Your task to perform on an android device: change notification settings in the gmail app Image 0: 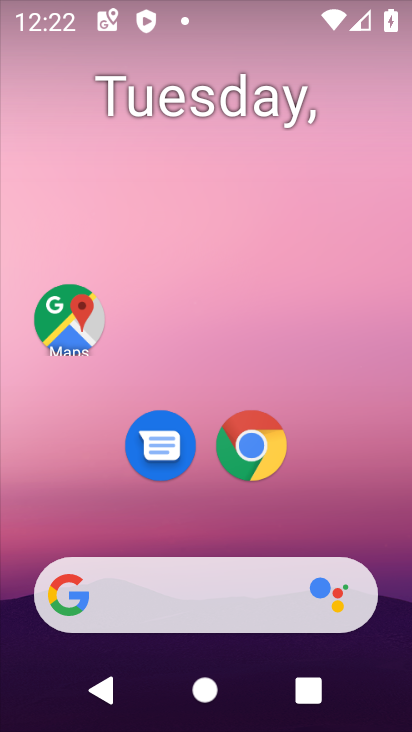
Step 0: drag from (366, 498) to (392, 1)
Your task to perform on an android device: change notification settings in the gmail app Image 1: 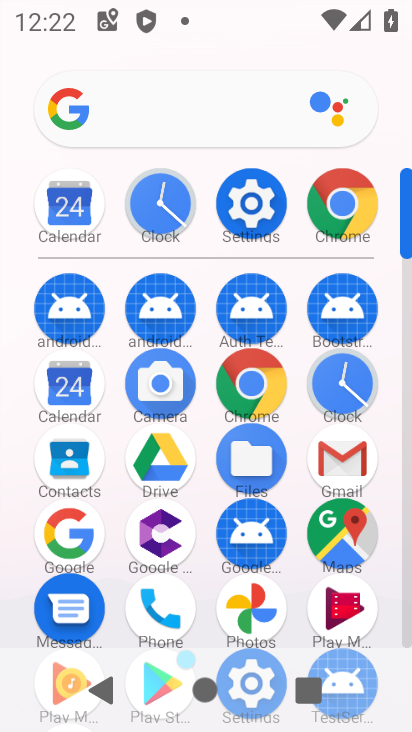
Step 1: click (355, 455)
Your task to perform on an android device: change notification settings in the gmail app Image 2: 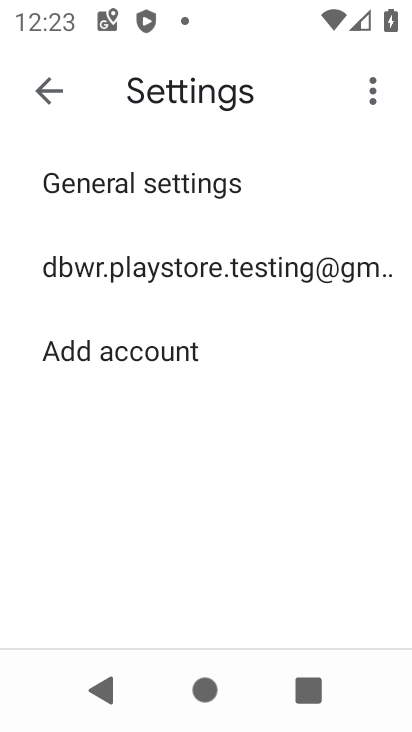
Step 2: click (162, 271)
Your task to perform on an android device: change notification settings in the gmail app Image 3: 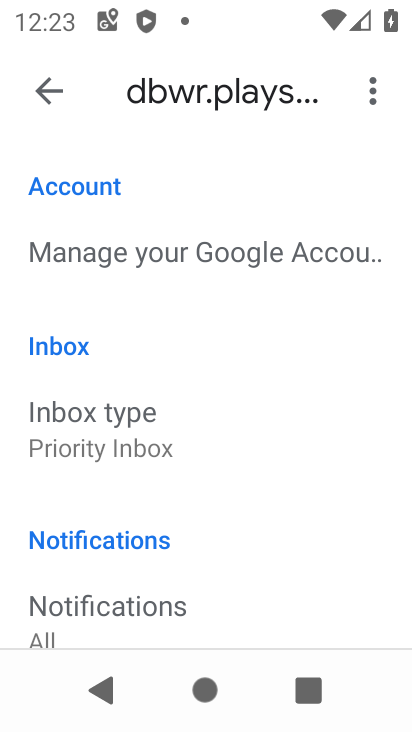
Step 3: drag from (124, 605) to (185, 301)
Your task to perform on an android device: change notification settings in the gmail app Image 4: 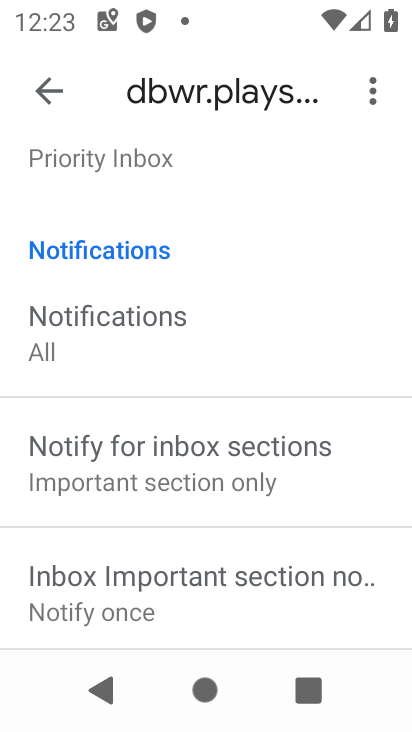
Step 4: click (145, 309)
Your task to perform on an android device: change notification settings in the gmail app Image 5: 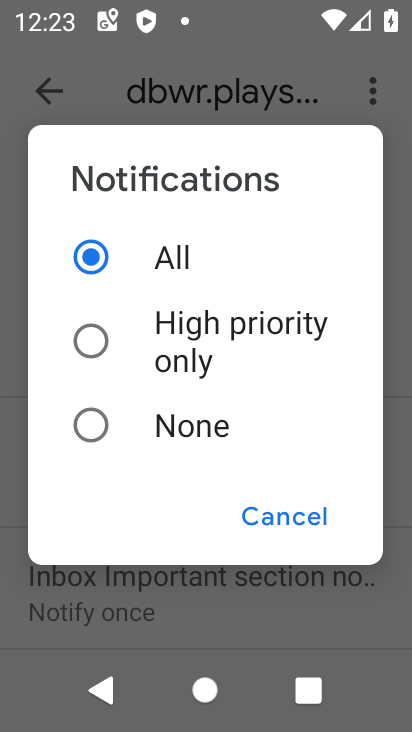
Step 5: click (103, 345)
Your task to perform on an android device: change notification settings in the gmail app Image 6: 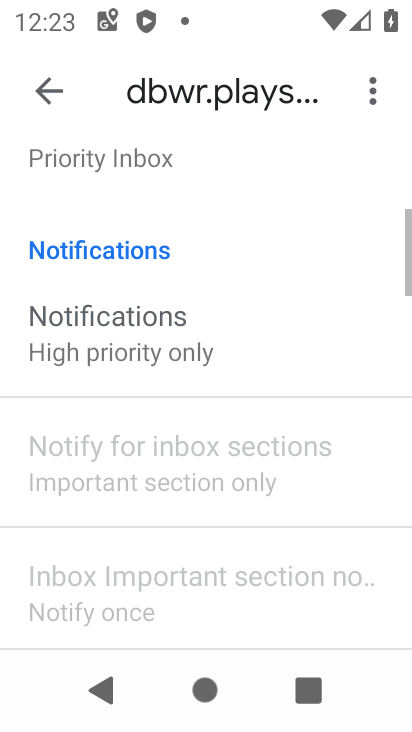
Step 6: task complete